Your task to perform on an android device: turn on showing notifications on the lock screen Image 0: 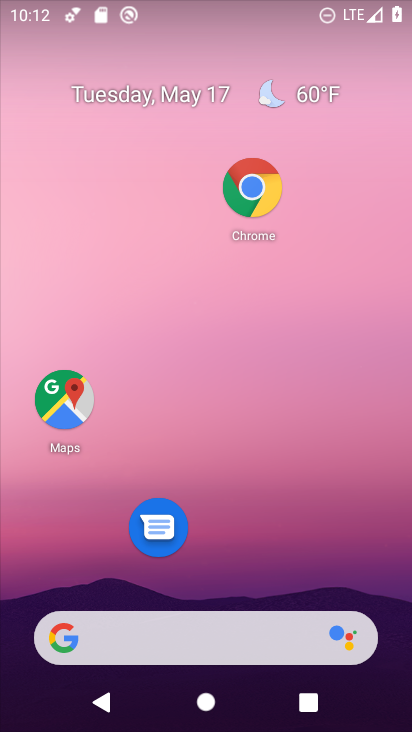
Step 0: drag from (349, 569) to (325, 0)
Your task to perform on an android device: turn on showing notifications on the lock screen Image 1: 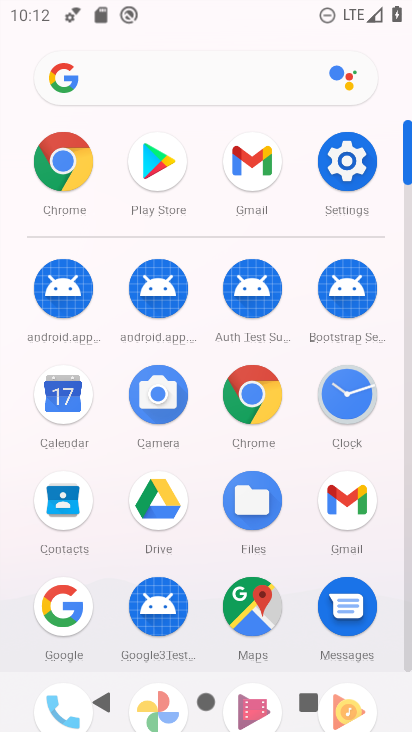
Step 1: click (335, 185)
Your task to perform on an android device: turn on showing notifications on the lock screen Image 2: 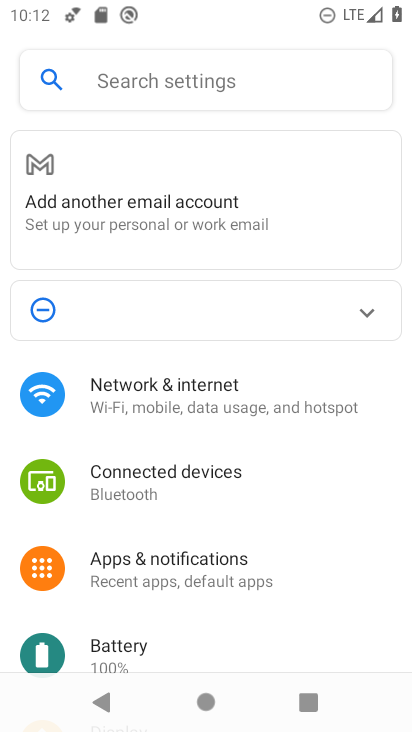
Step 2: drag from (135, 551) to (131, 317)
Your task to perform on an android device: turn on showing notifications on the lock screen Image 3: 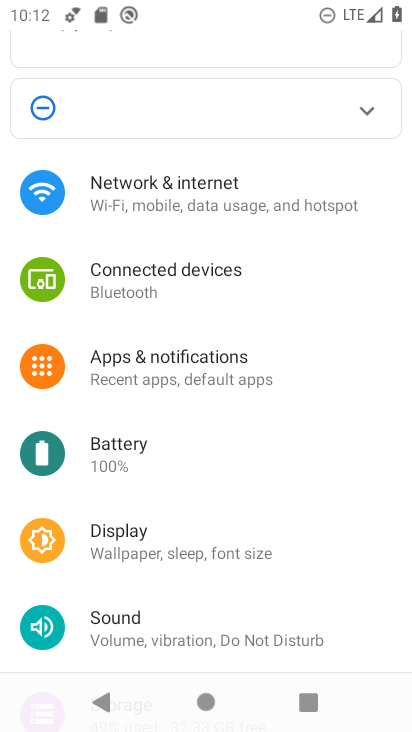
Step 3: drag from (135, 571) to (137, 397)
Your task to perform on an android device: turn on showing notifications on the lock screen Image 4: 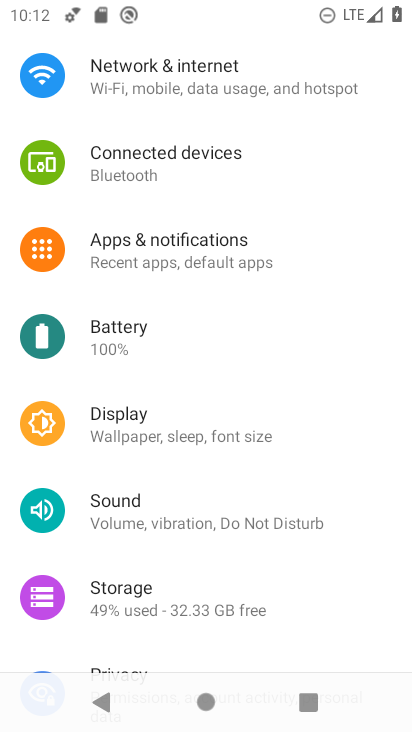
Step 4: drag from (162, 593) to (166, 434)
Your task to perform on an android device: turn on showing notifications on the lock screen Image 5: 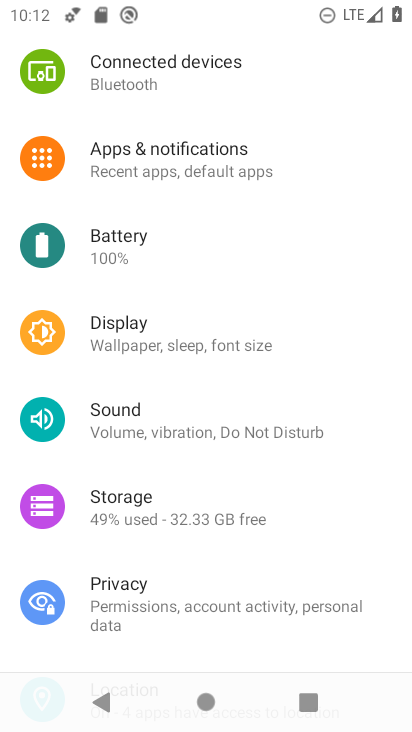
Step 5: drag from (174, 573) to (190, 296)
Your task to perform on an android device: turn on showing notifications on the lock screen Image 6: 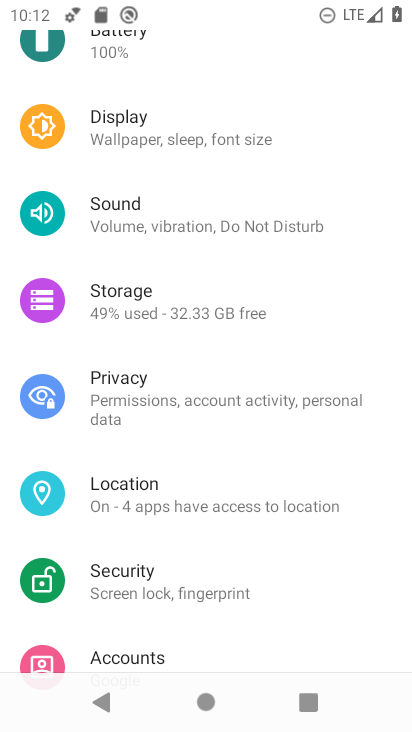
Step 6: drag from (174, 327) to (217, 508)
Your task to perform on an android device: turn on showing notifications on the lock screen Image 7: 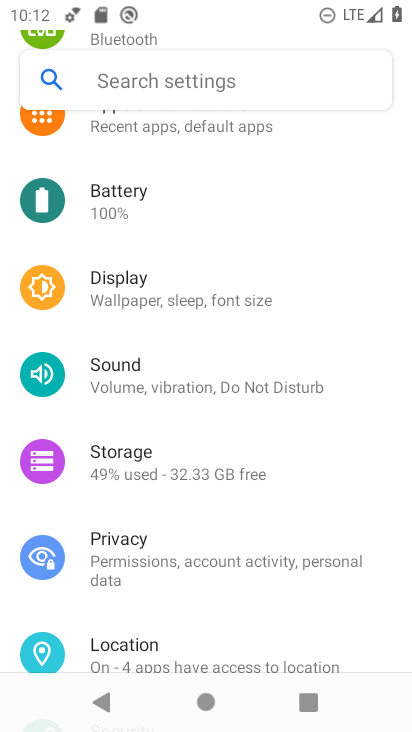
Step 7: click (202, 143)
Your task to perform on an android device: turn on showing notifications on the lock screen Image 8: 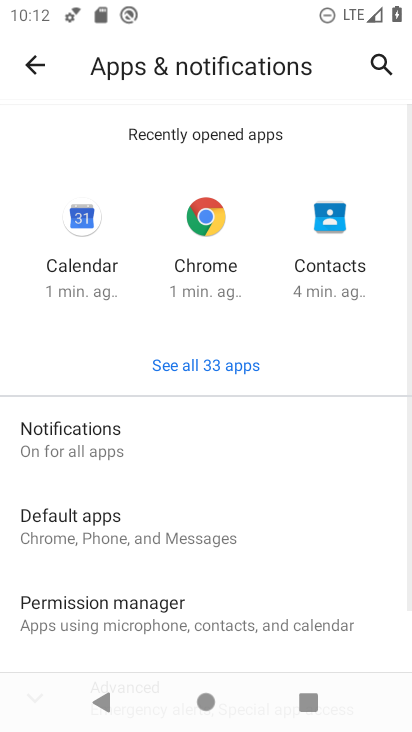
Step 8: click (208, 445)
Your task to perform on an android device: turn on showing notifications on the lock screen Image 9: 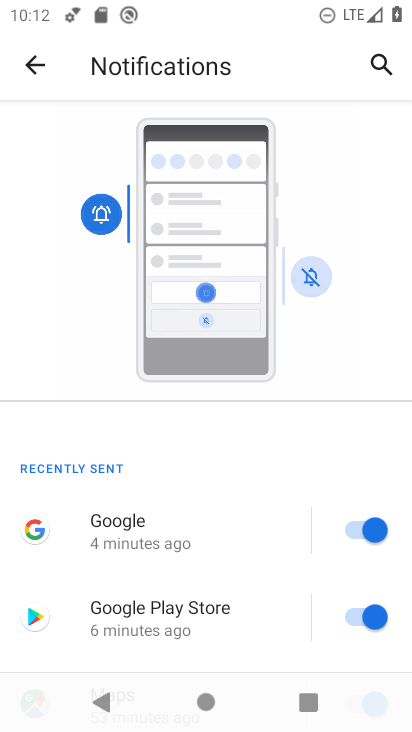
Step 9: drag from (179, 529) to (140, 205)
Your task to perform on an android device: turn on showing notifications on the lock screen Image 10: 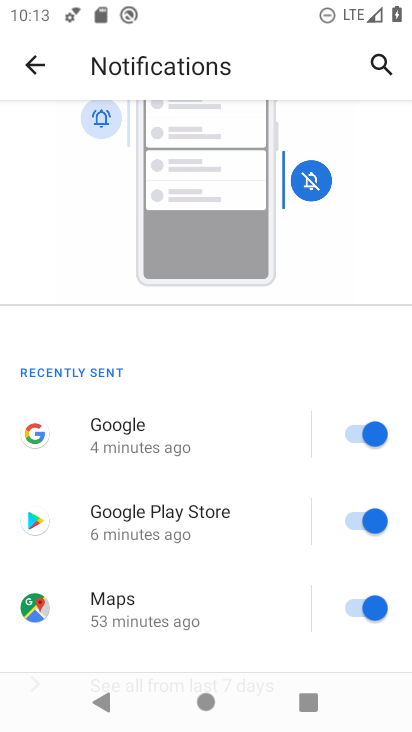
Step 10: drag from (181, 592) to (188, 427)
Your task to perform on an android device: turn on showing notifications on the lock screen Image 11: 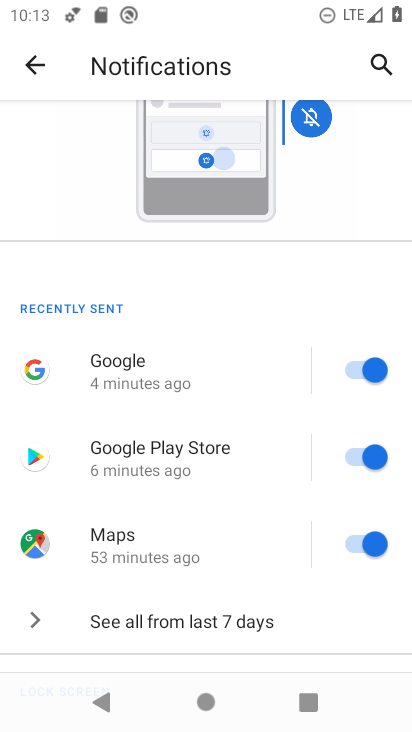
Step 11: drag from (173, 585) to (180, 398)
Your task to perform on an android device: turn on showing notifications on the lock screen Image 12: 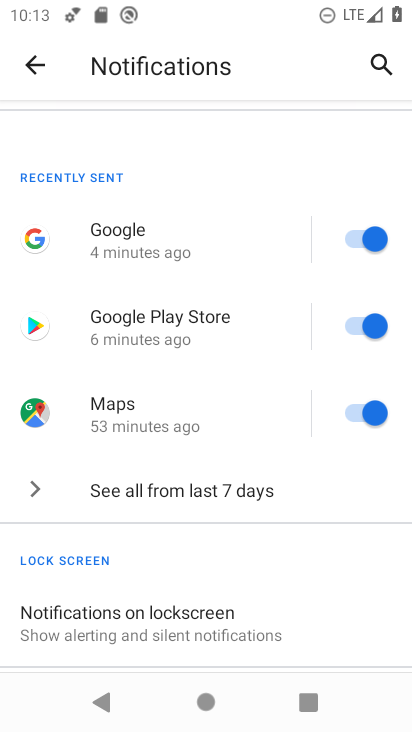
Step 12: drag from (122, 574) to (149, 440)
Your task to perform on an android device: turn on showing notifications on the lock screen Image 13: 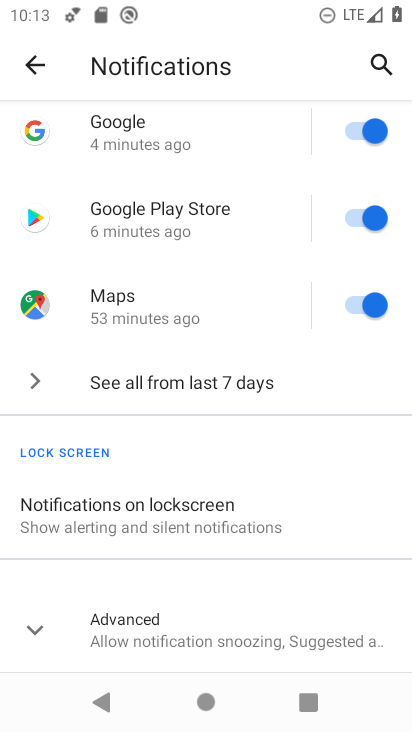
Step 13: click (183, 617)
Your task to perform on an android device: turn on showing notifications on the lock screen Image 14: 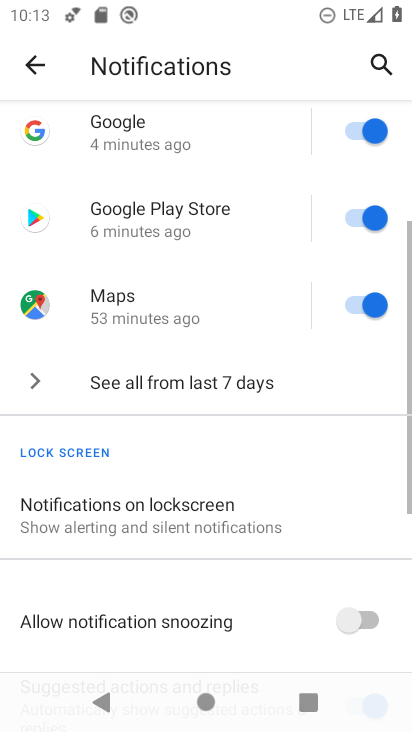
Step 14: click (237, 569)
Your task to perform on an android device: turn on showing notifications on the lock screen Image 15: 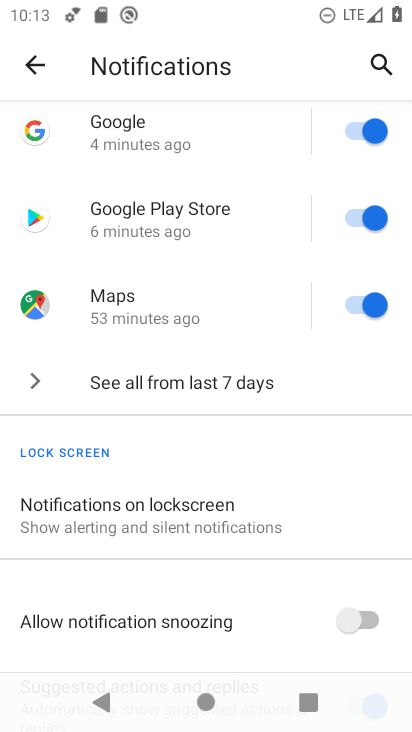
Step 15: click (238, 485)
Your task to perform on an android device: turn on showing notifications on the lock screen Image 16: 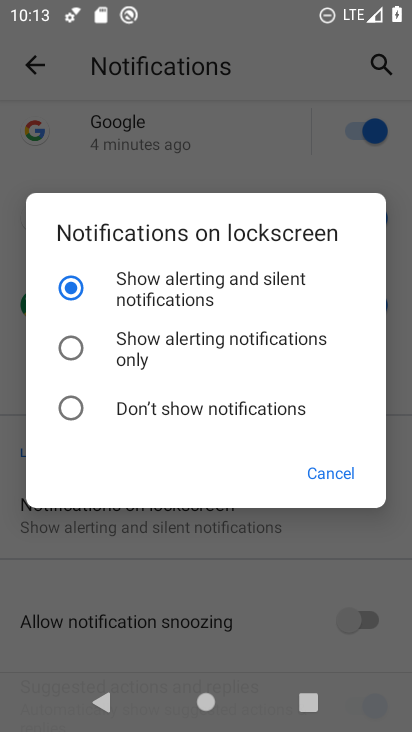
Step 16: click (218, 348)
Your task to perform on an android device: turn on showing notifications on the lock screen Image 17: 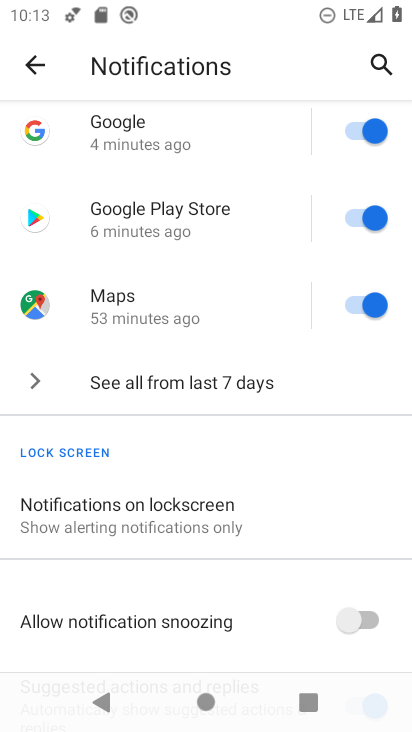
Step 17: task complete